Your task to perform on an android device: change timer sound Image 0: 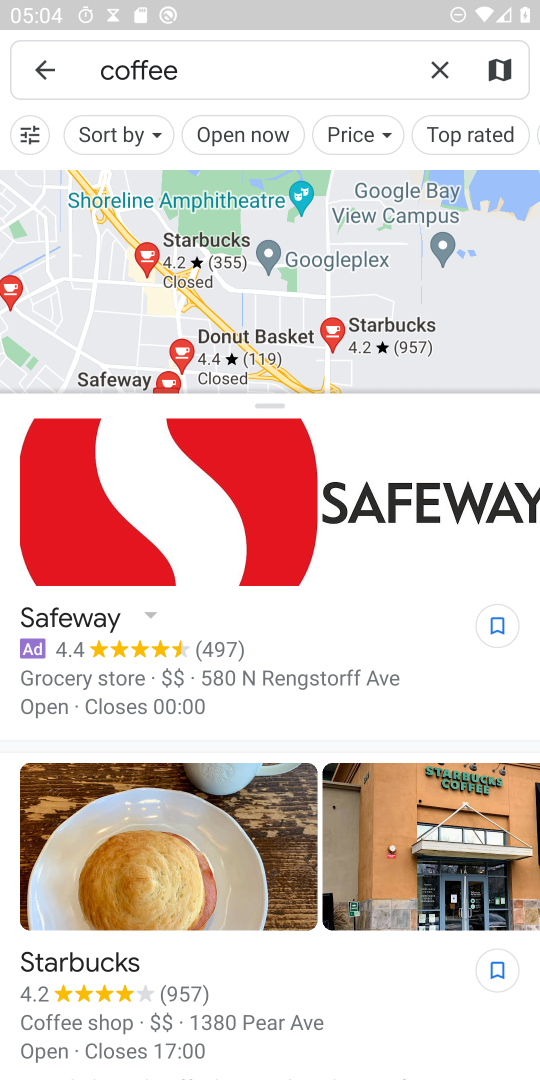
Step 0: press home button
Your task to perform on an android device: change timer sound Image 1: 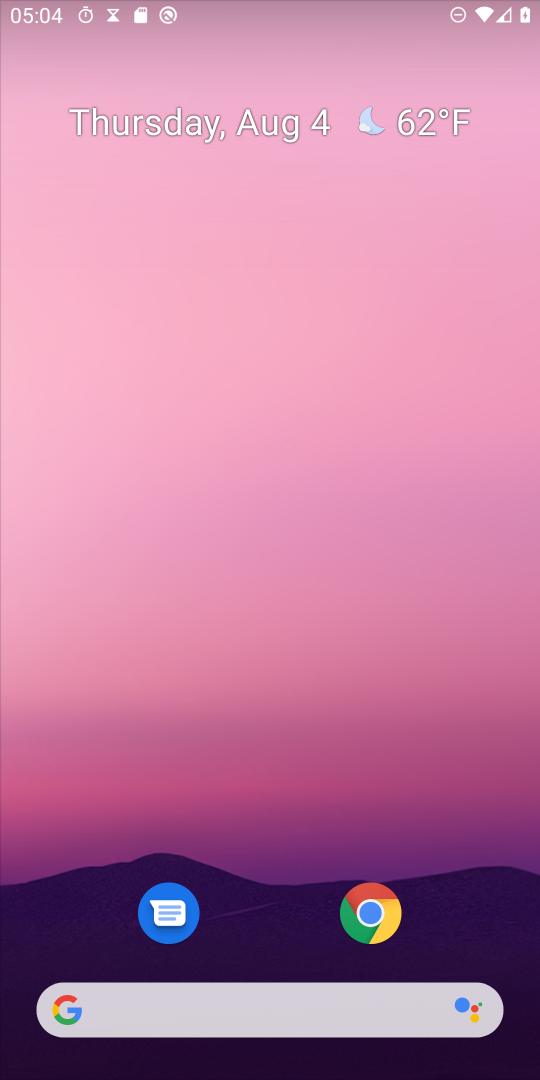
Step 1: drag from (262, 987) to (386, 67)
Your task to perform on an android device: change timer sound Image 2: 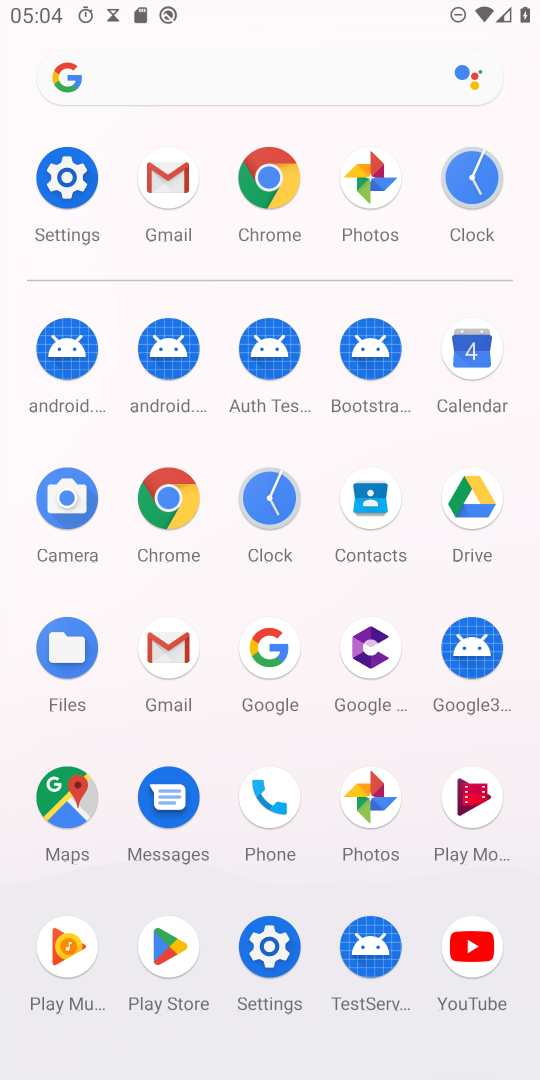
Step 2: click (270, 942)
Your task to perform on an android device: change timer sound Image 3: 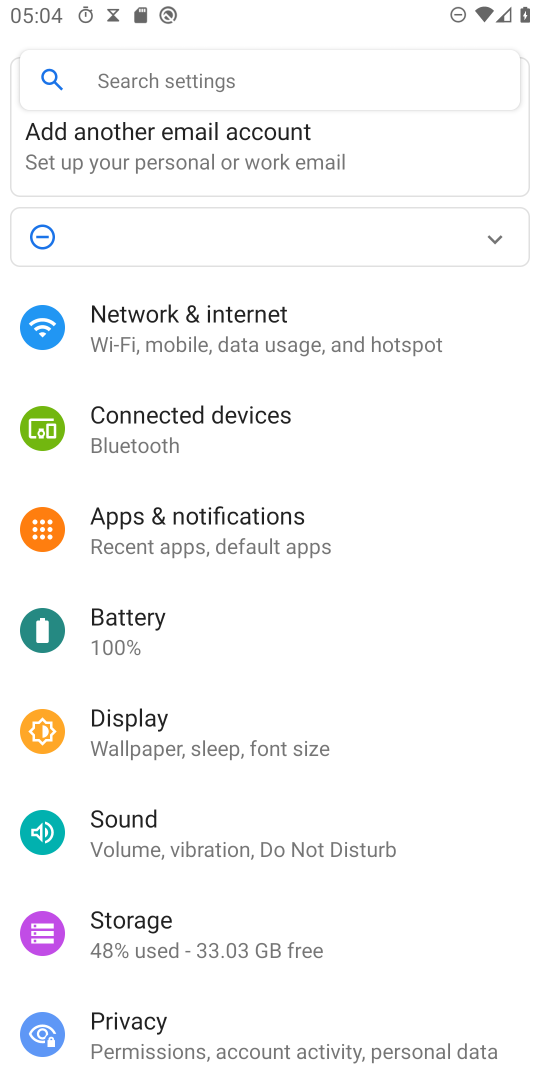
Step 3: press home button
Your task to perform on an android device: change timer sound Image 4: 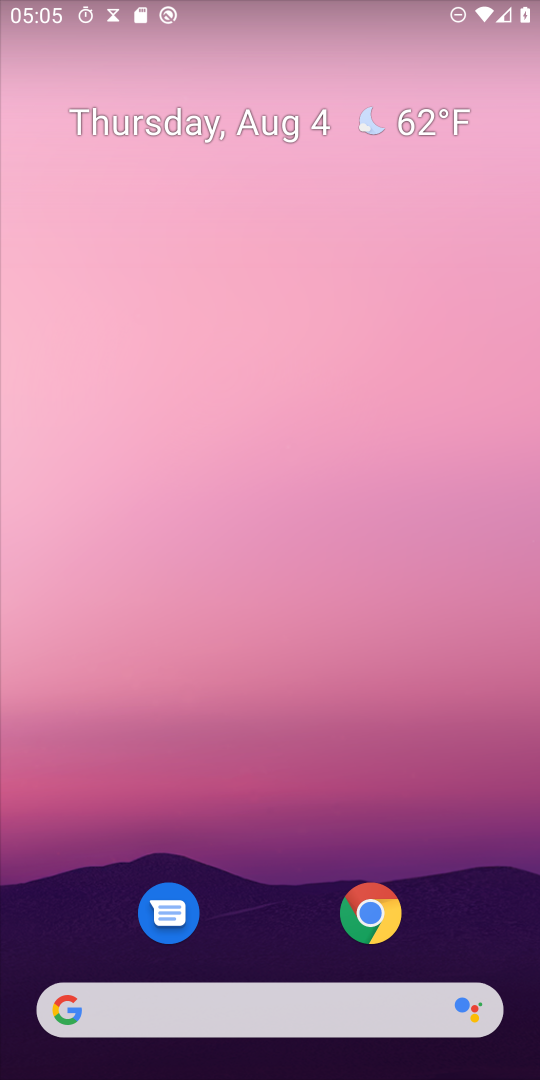
Step 4: drag from (346, 1024) to (331, 215)
Your task to perform on an android device: change timer sound Image 5: 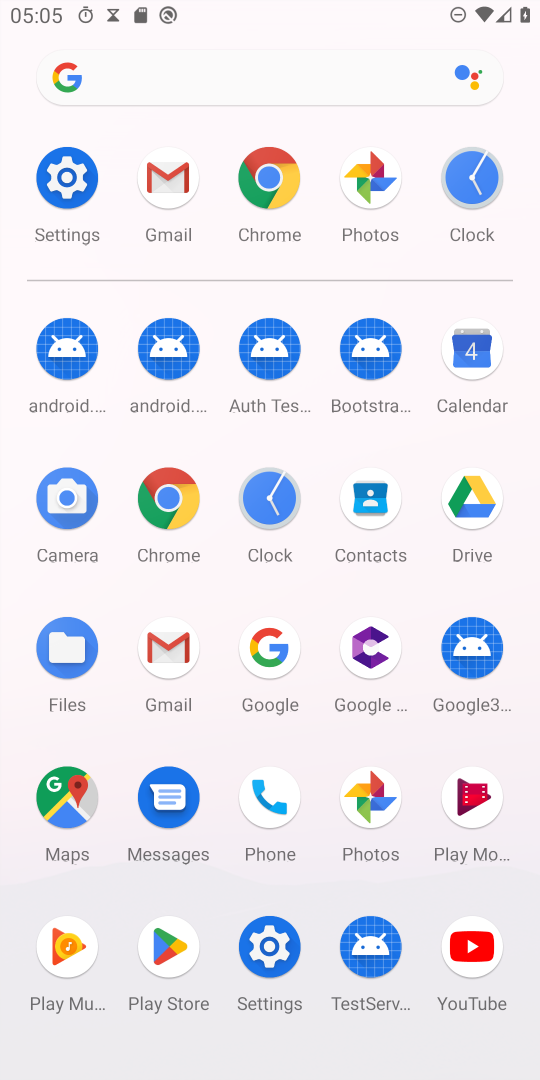
Step 5: click (276, 502)
Your task to perform on an android device: change timer sound Image 6: 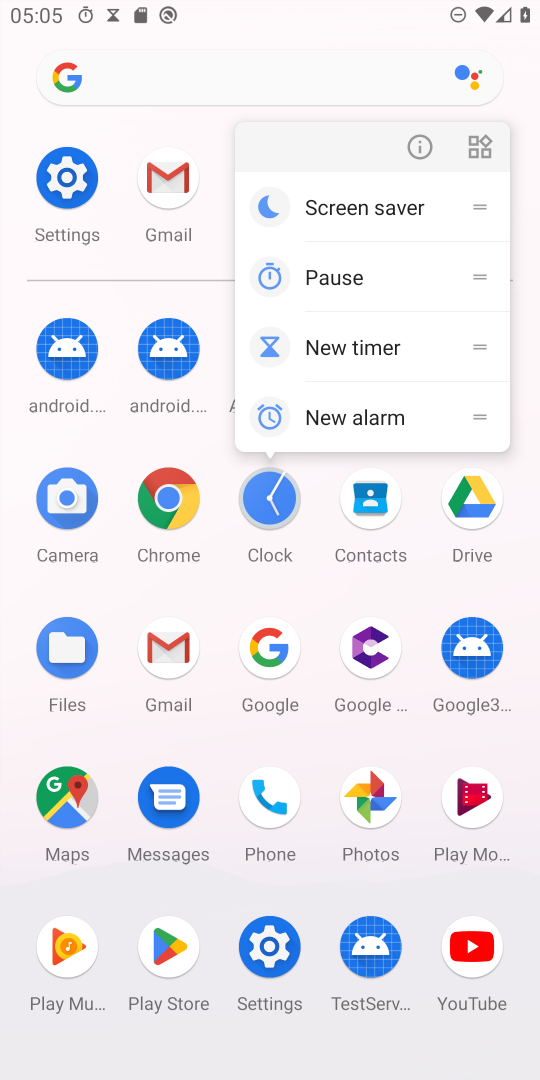
Step 6: click (270, 491)
Your task to perform on an android device: change timer sound Image 7: 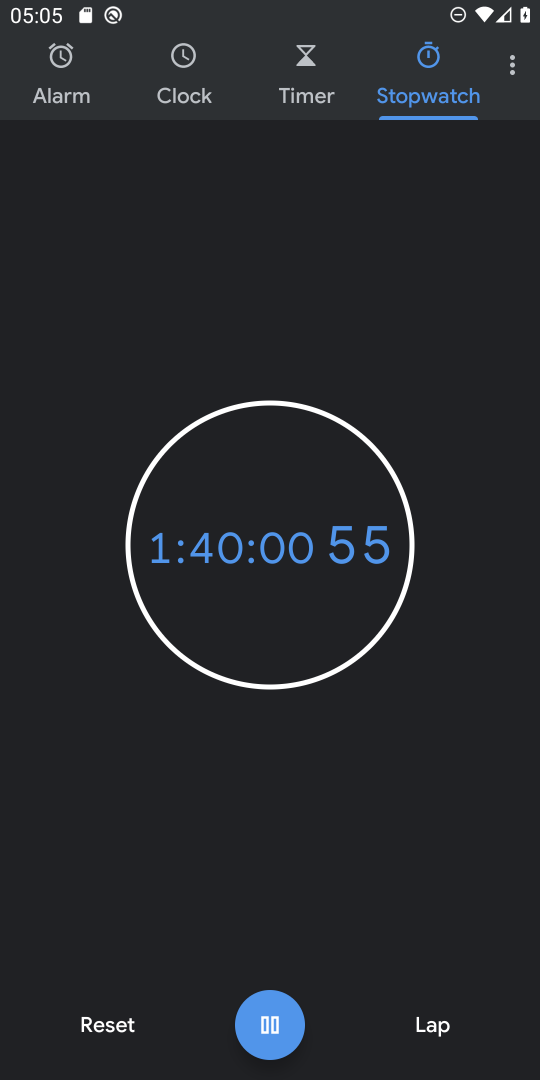
Step 7: click (323, 78)
Your task to perform on an android device: change timer sound Image 8: 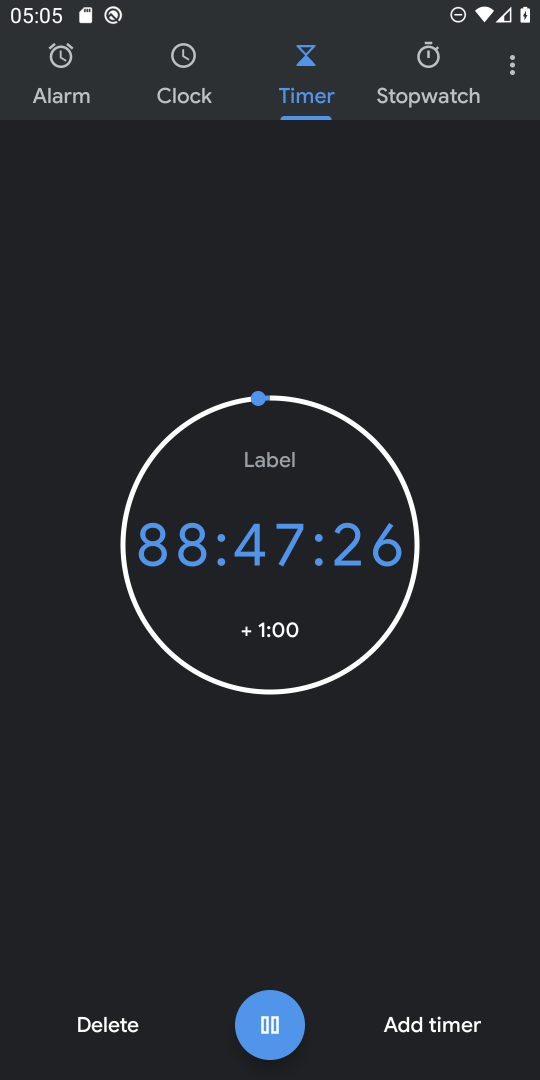
Step 8: click (502, 70)
Your task to perform on an android device: change timer sound Image 9: 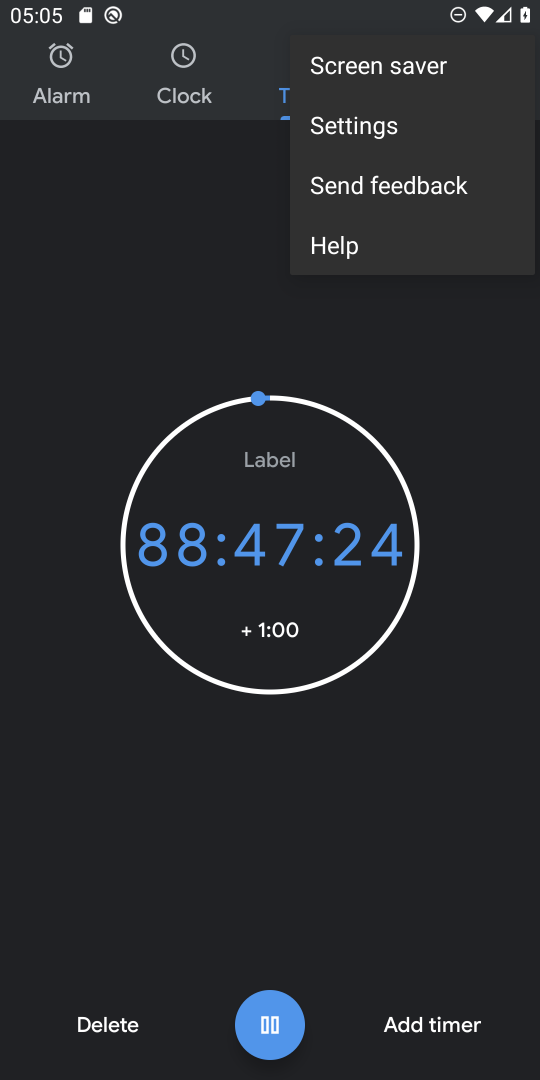
Step 9: click (396, 116)
Your task to perform on an android device: change timer sound Image 10: 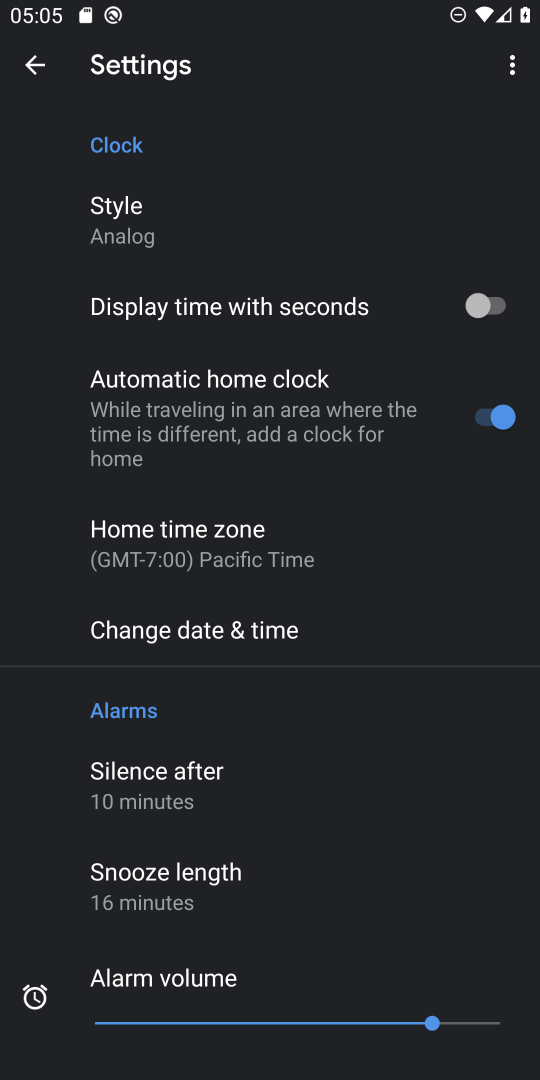
Step 10: drag from (227, 909) to (258, 196)
Your task to perform on an android device: change timer sound Image 11: 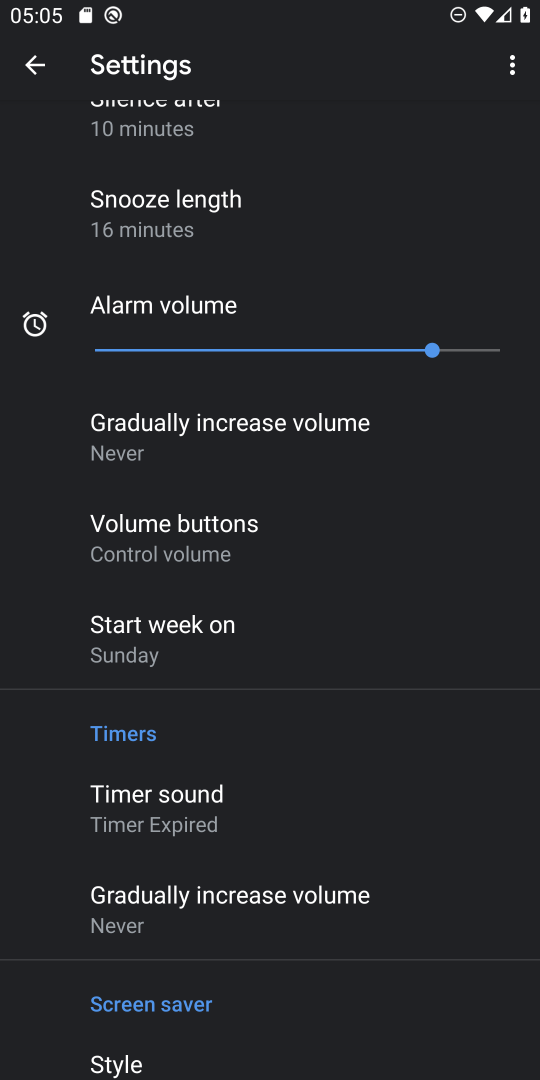
Step 11: click (226, 811)
Your task to perform on an android device: change timer sound Image 12: 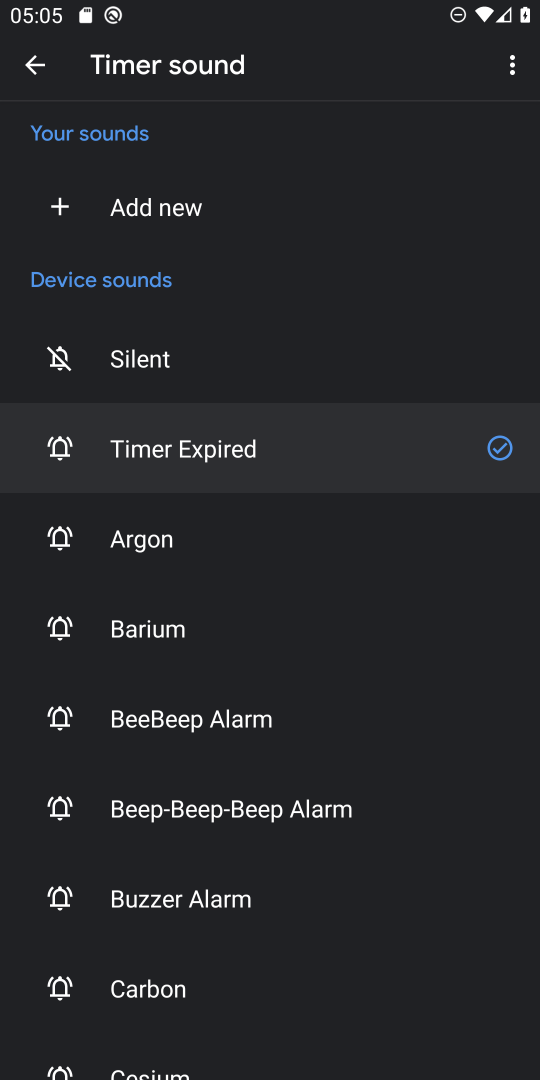
Step 12: click (173, 554)
Your task to perform on an android device: change timer sound Image 13: 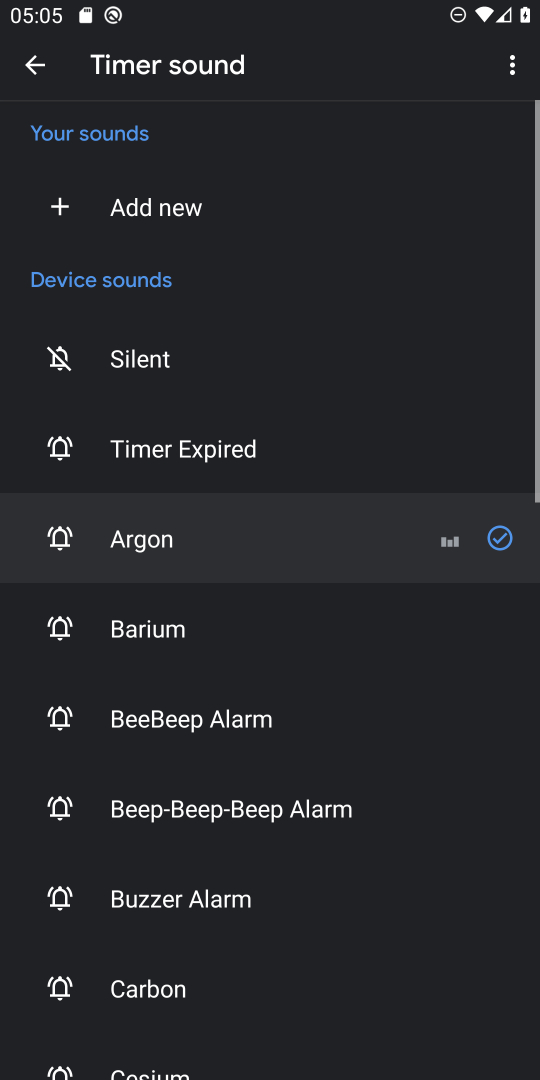
Step 13: task complete